Your task to perform on an android device: Open battery settings Image 0: 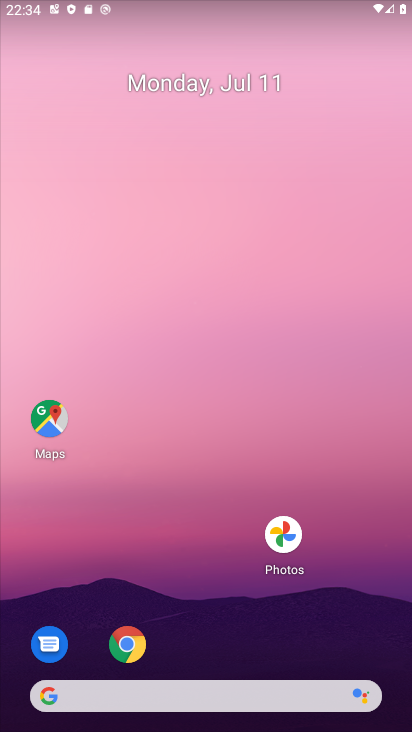
Step 0: click (205, 137)
Your task to perform on an android device: Open battery settings Image 1: 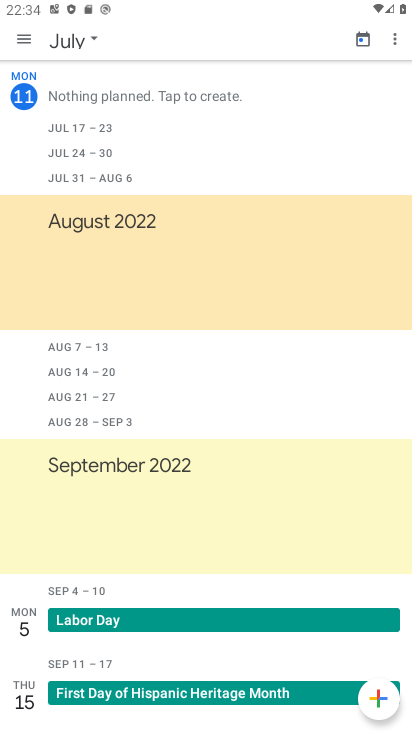
Step 1: press back button
Your task to perform on an android device: Open battery settings Image 2: 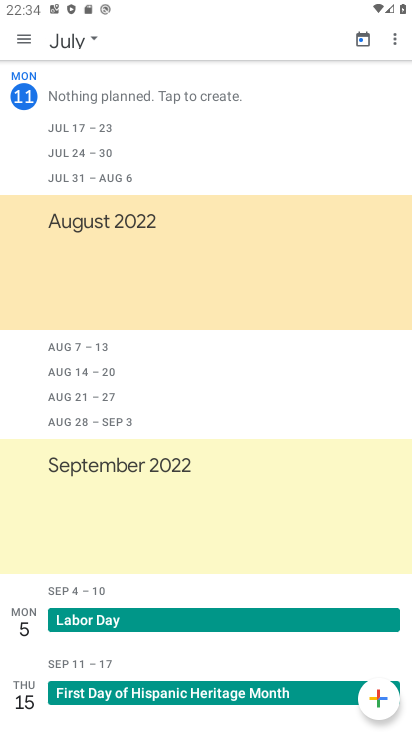
Step 2: press back button
Your task to perform on an android device: Open battery settings Image 3: 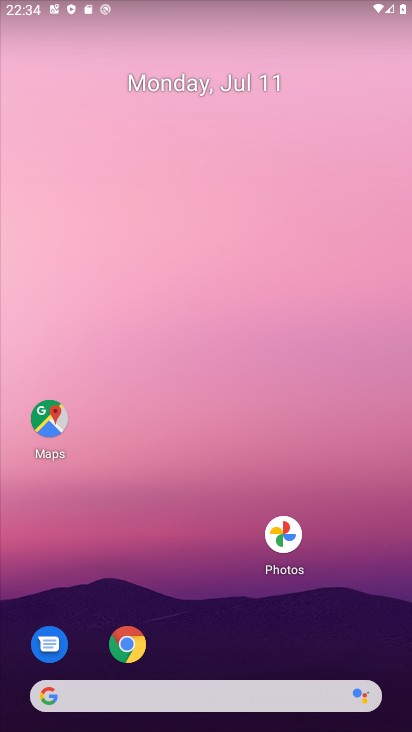
Step 3: drag from (214, 670) to (131, 210)
Your task to perform on an android device: Open battery settings Image 4: 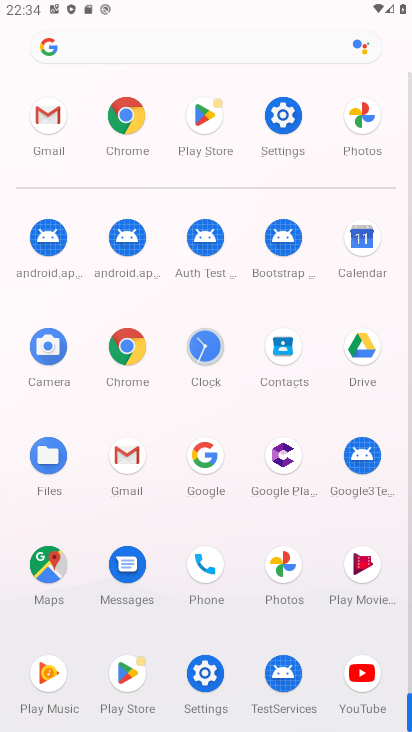
Step 4: click (272, 119)
Your task to perform on an android device: Open battery settings Image 5: 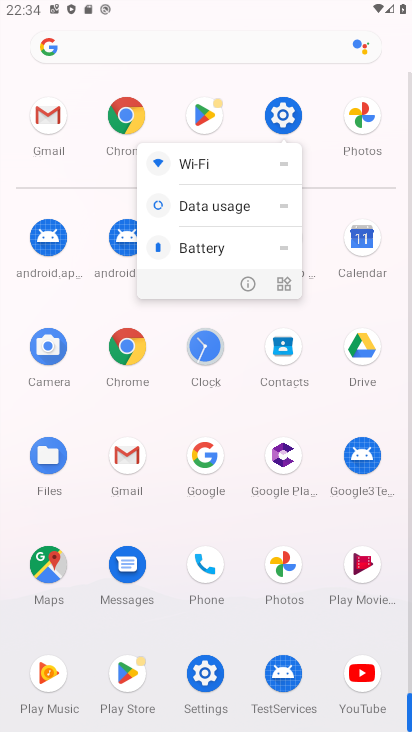
Step 5: click (203, 662)
Your task to perform on an android device: Open battery settings Image 6: 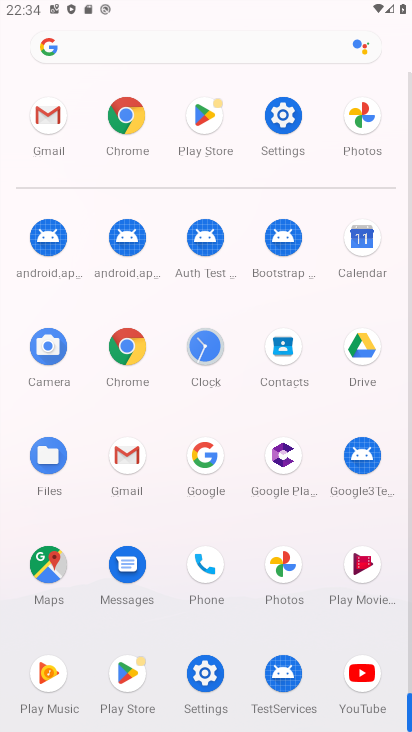
Step 6: click (203, 661)
Your task to perform on an android device: Open battery settings Image 7: 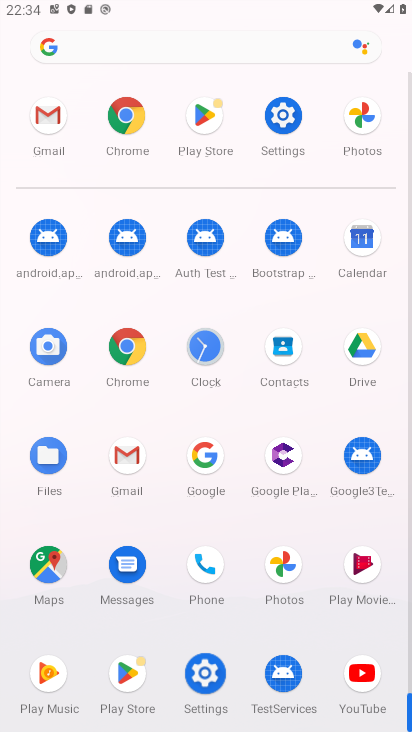
Step 7: click (203, 661)
Your task to perform on an android device: Open battery settings Image 8: 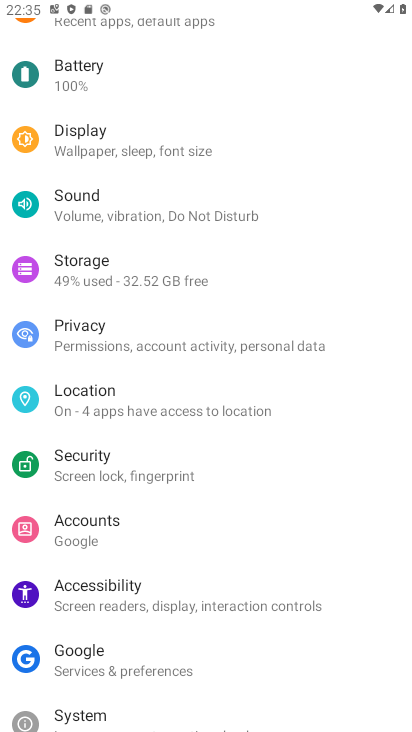
Step 8: click (80, 81)
Your task to perform on an android device: Open battery settings Image 9: 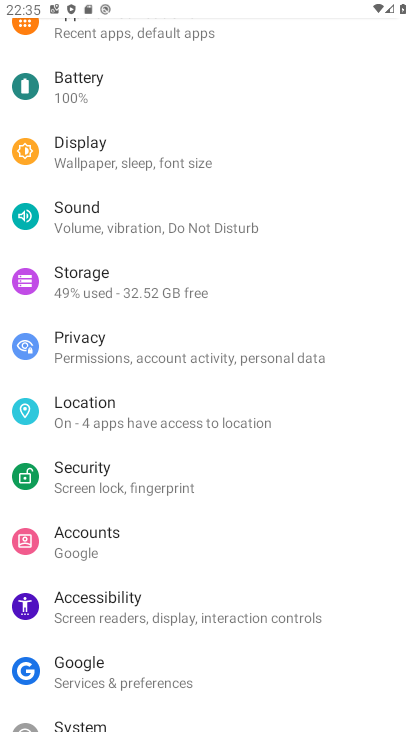
Step 9: click (87, 109)
Your task to perform on an android device: Open battery settings Image 10: 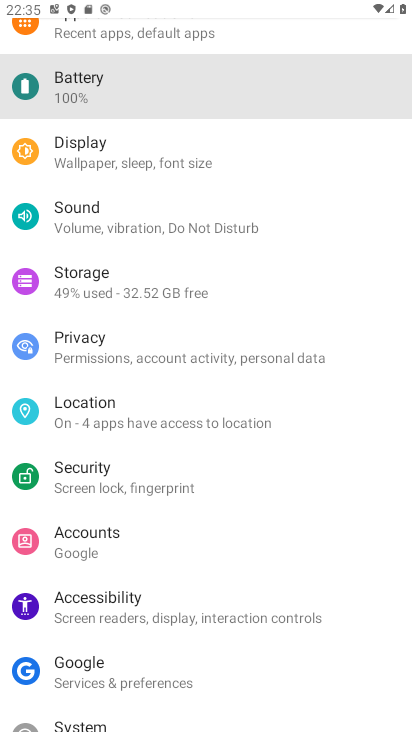
Step 10: click (79, 102)
Your task to perform on an android device: Open battery settings Image 11: 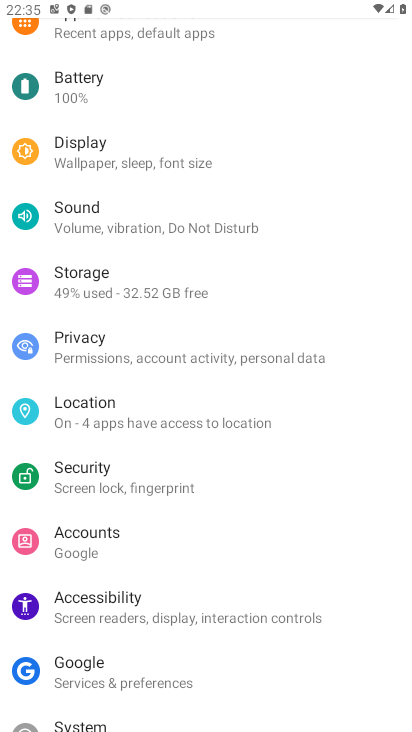
Step 11: click (84, 101)
Your task to perform on an android device: Open battery settings Image 12: 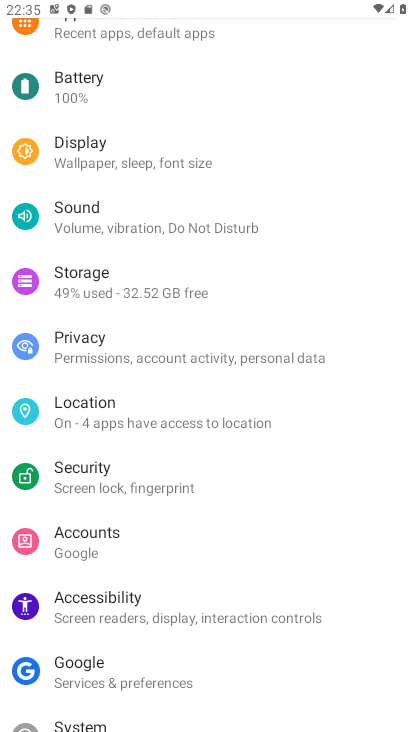
Step 12: click (87, 103)
Your task to perform on an android device: Open battery settings Image 13: 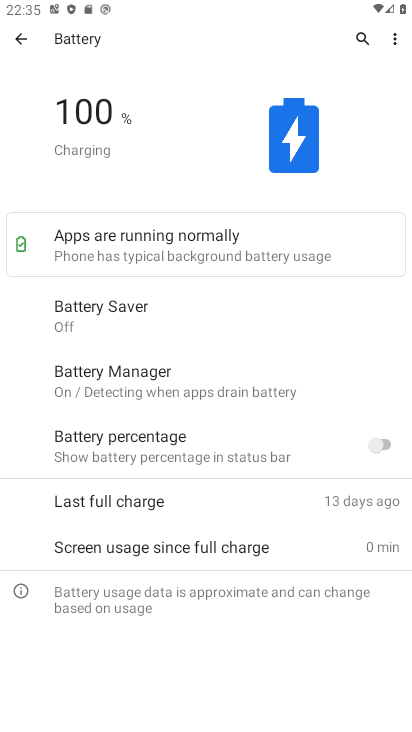
Step 13: task complete